Your task to perform on an android device: Go to network settings Image 0: 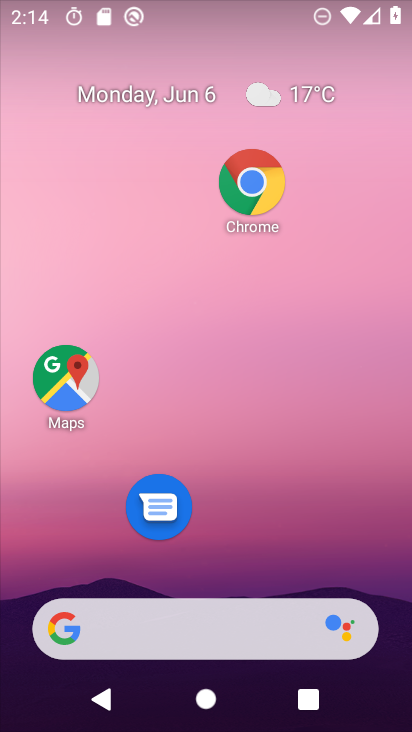
Step 0: drag from (285, 661) to (200, 205)
Your task to perform on an android device: Go to network settings Image 1: 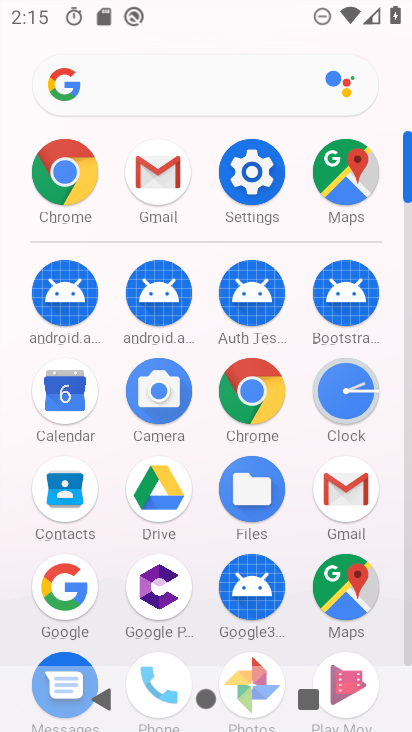
Step 1: click (245, 200)
Your task to perform on an android device: Go to network settings Image 2: 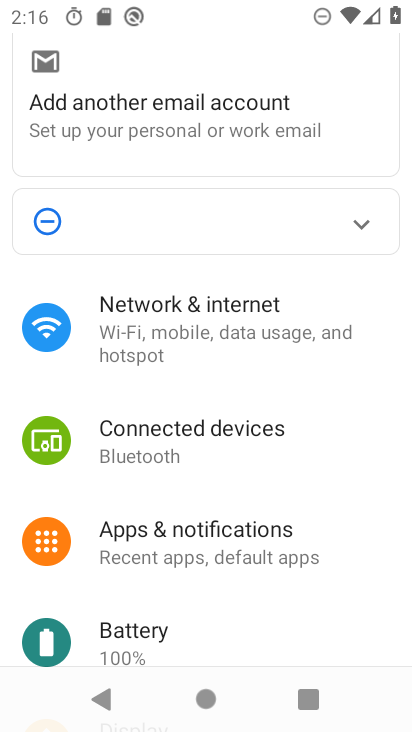
Step 2: click (158, 325)
Your task to perform on an android device: Go to network settings Image 3: 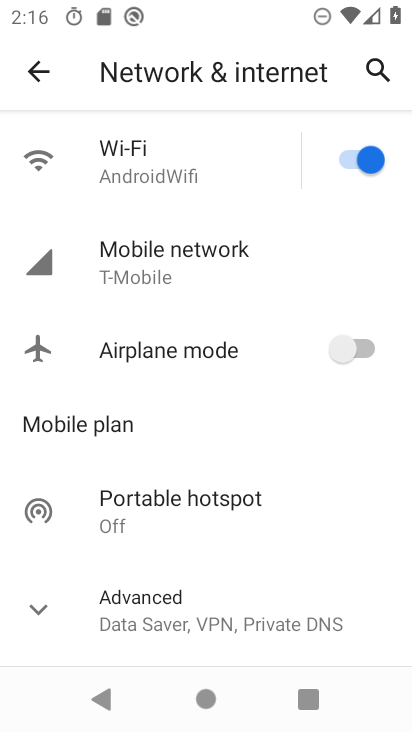
Step 3: task complete